Your task to perform on an android device: all mails in gmail Image 0: 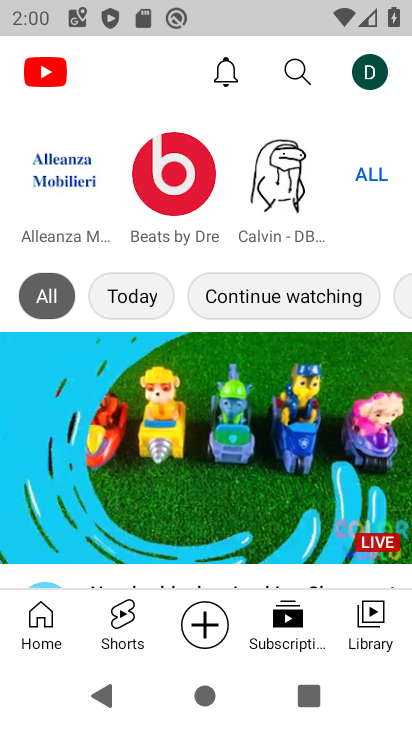
Step 0: press home button
Your task to perform on an android device: all mails in gmail Image 1: 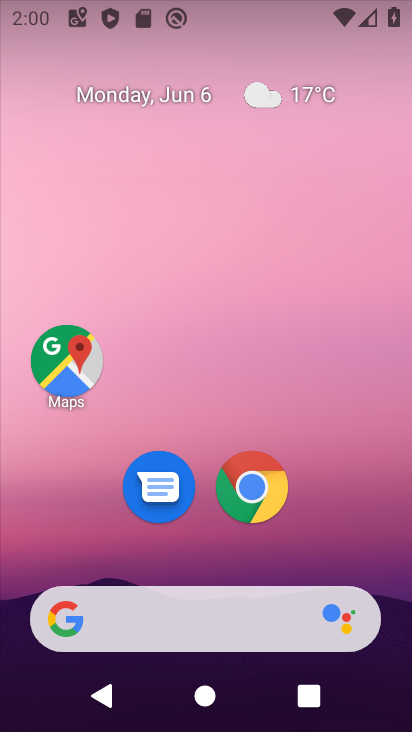
Step 1: drag from (85, 553) to (172, 120)
Your task to perform on an android device: all mails in gmail Image 2: 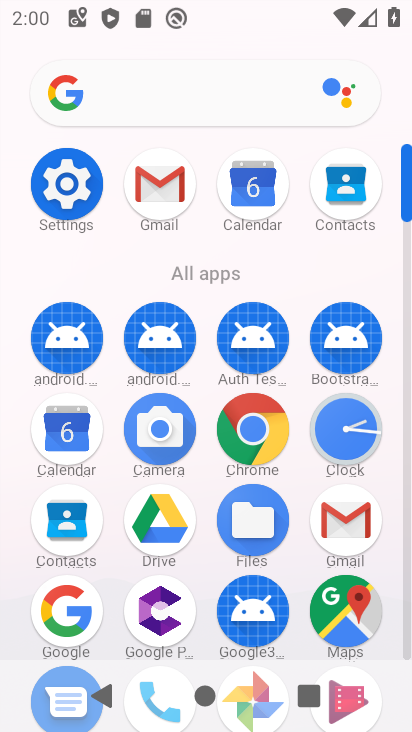
Step 2: click (344, 537)
Your task to perform on an android device: all mails in gmail Image 3: 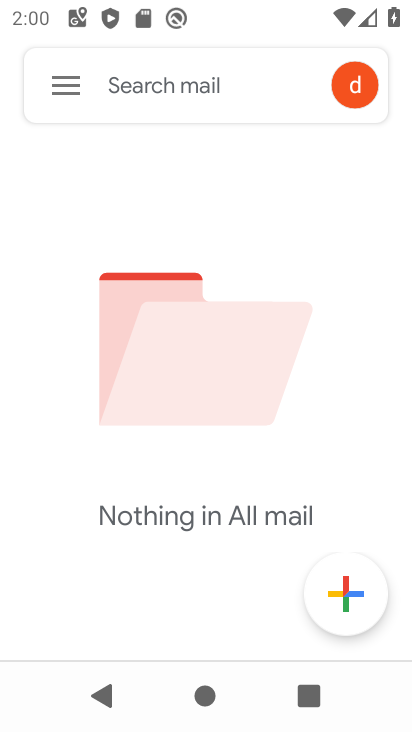
Step 3: task complete